Your task to perform on an android device: Open Wikipedia Image 0: 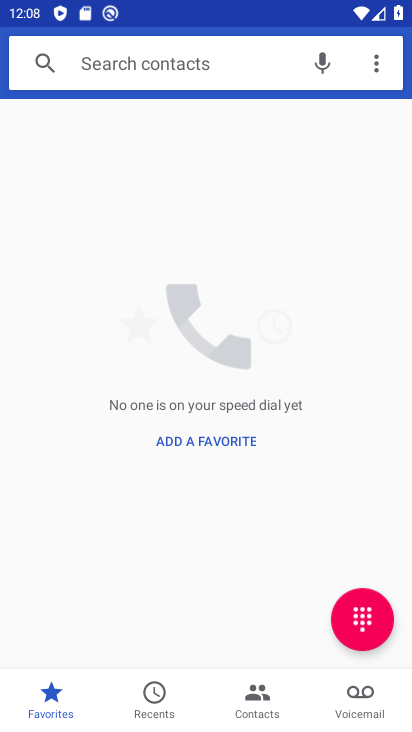
Step 0: press home button
Your task to perform on an android device: Open Wikipedia Image 1: 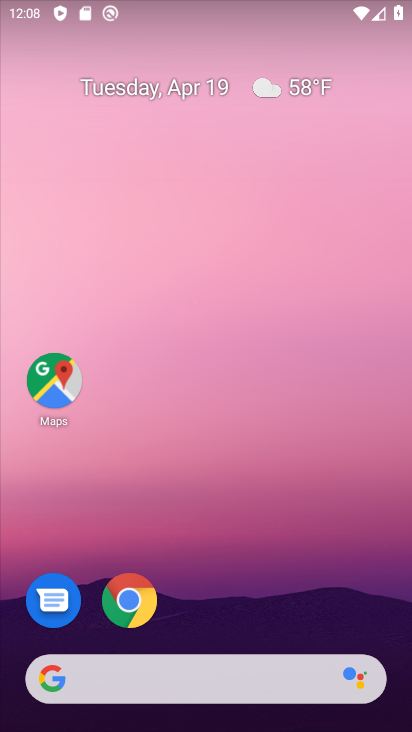
Step 1: drag from (296, 603) to (243, 50)
Your task to perform on an android device: Open Wikipedia Image 2: 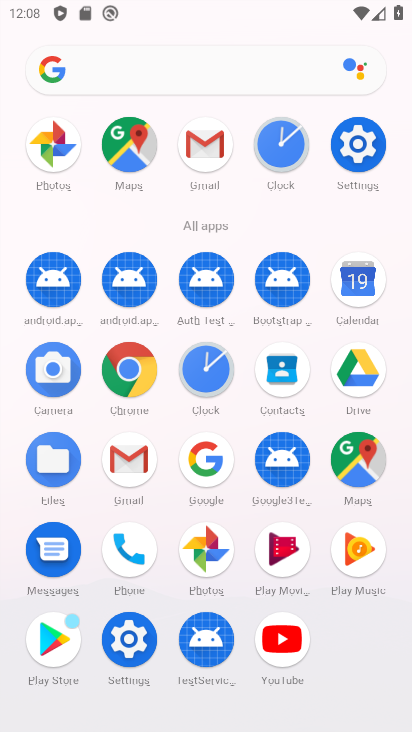
Step 2: click (129, 367)
Your task to perform on an android device: Open Wikipedia Image 3: 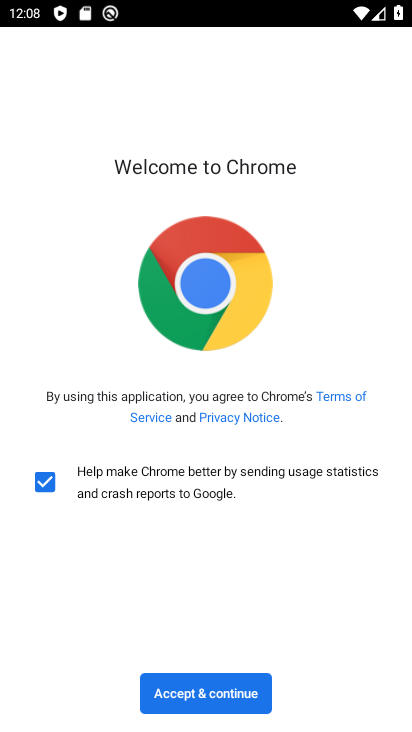
Step 3: click (241, 695)
Your task to perform on an android device: Open Wikipedia Image 4: 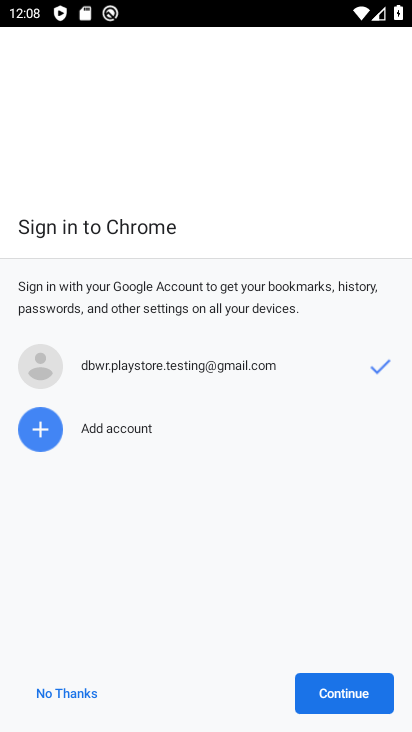
Step 4: click (356, 694)
Your task to perform on an android device: Open Wikipedia Image 5: 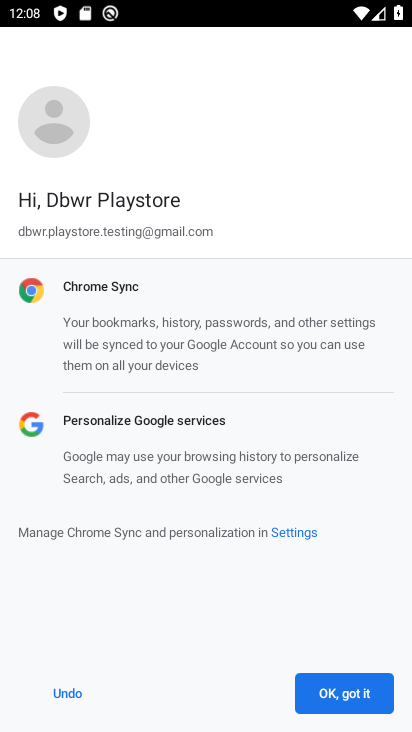
Step 5: click (356, 694)
Your task to perform on an android device: Open Wikipedia Image 6: 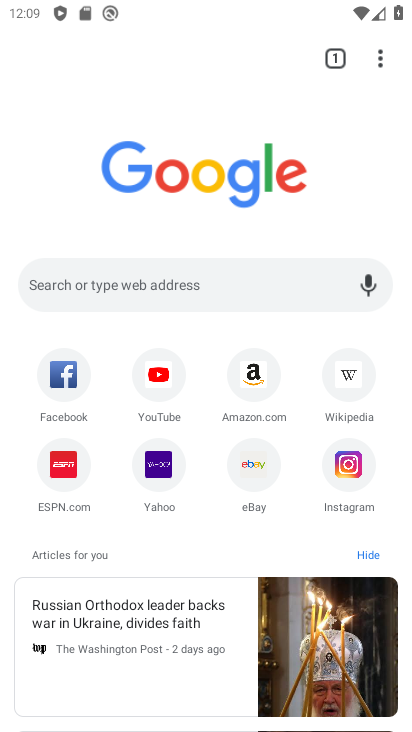
Step 6: click (357, 368)
Your task to perform on an android device: Open Wikipedia Image 7: 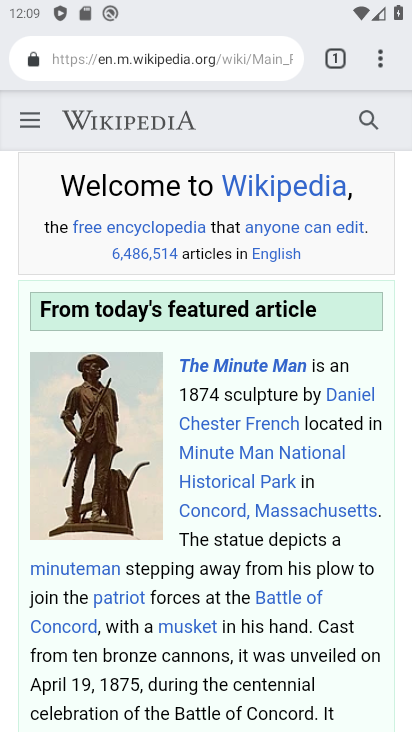
Step 7: task complete